Your task to perform on an android device: turn off location history Image 0: 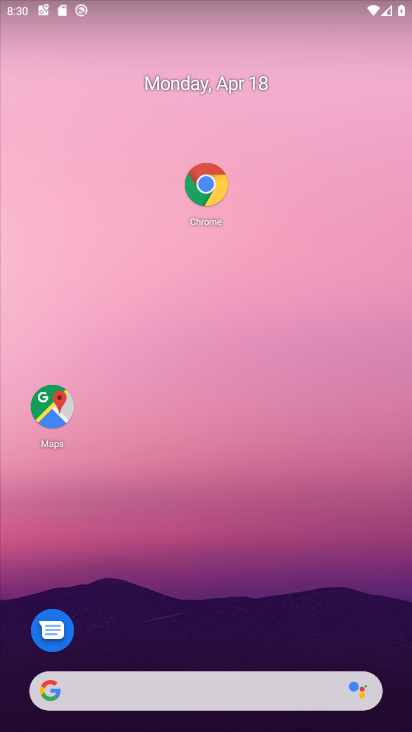
Step 0: drag from (152, 604) to (248, 182)
Your task to perform on an android device: turn off location history Image 1: 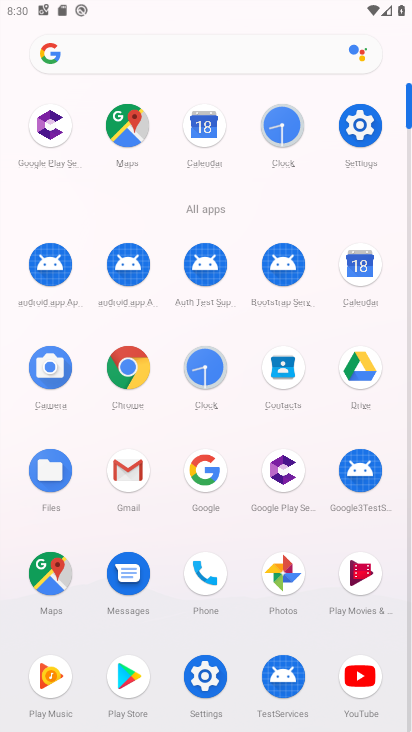
Step 1: click (200, 678)
Your task to perform on an android device: turn off location history Image 2: 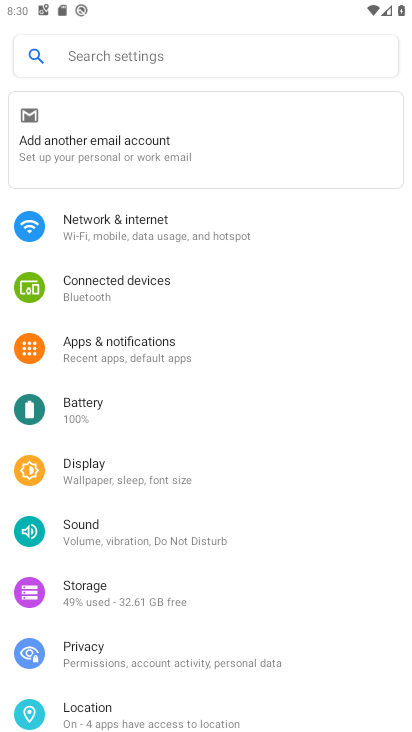
Step 2: drag from (182, 671) to (288, 344)
Your task to perform on an android device: turn off location history Image 3: 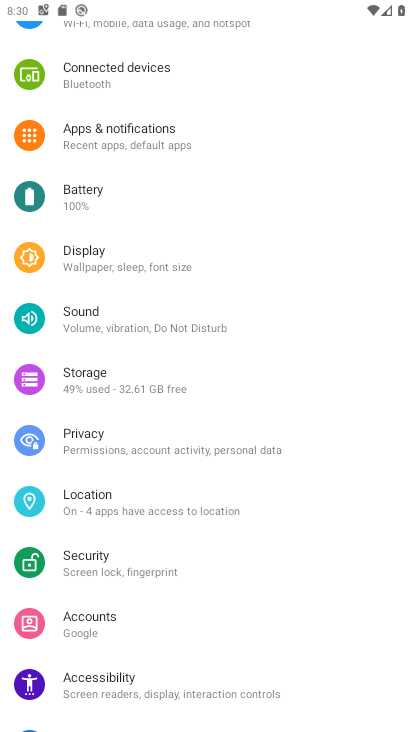
Step 3: click (110, 514)
Your task to perform on an android device: turn off location history Image 4: 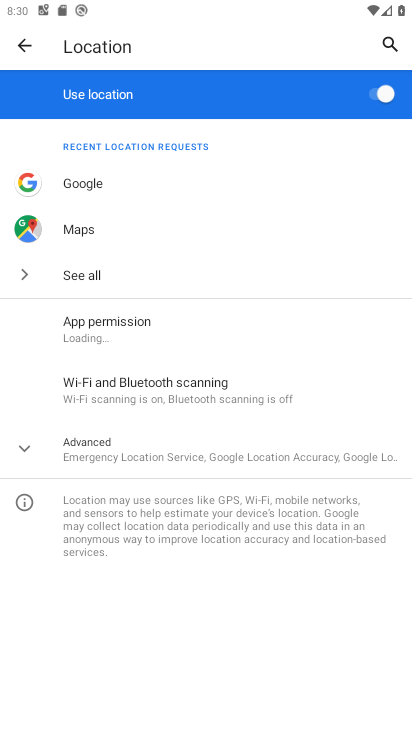
Step 4: click (142, 447)
Your task to perform on an android device: turn off location history Image 5: 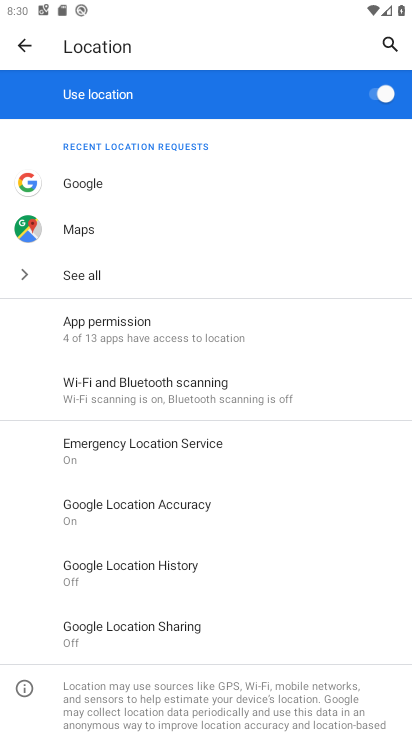
Step 5: click (174, 563)
Your task to perform on an android device: turn off location history Image 6: 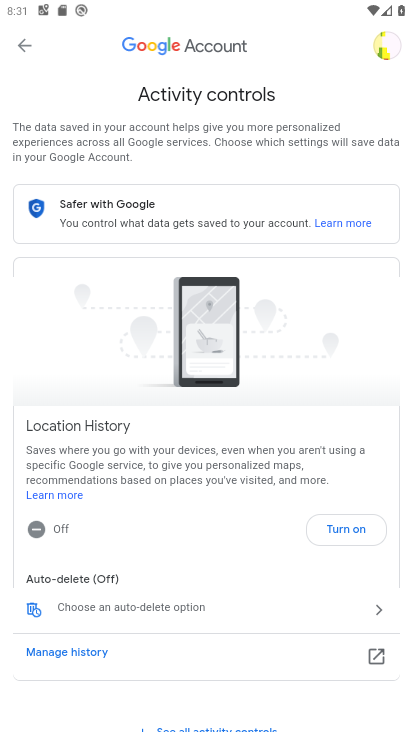
Step 6: task complete